Your task to perform on an android device: Open Google Chrome and click the shortcut for Amazon.com Image 0: 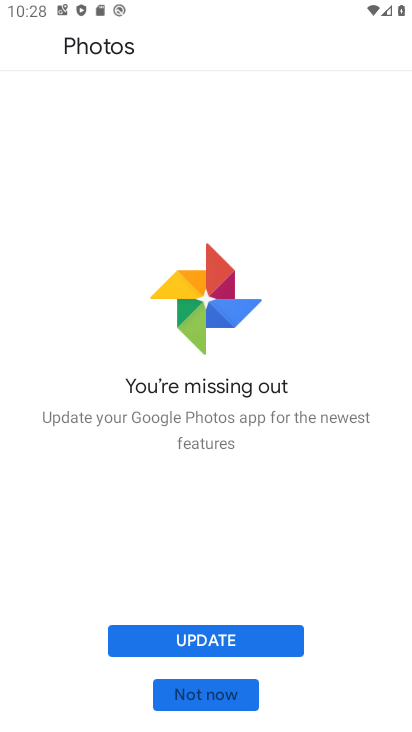
Step 0: press home button
Your task to perform on an android device: Open Google Chrome and click the shortcut for Amazon.com Image 1: 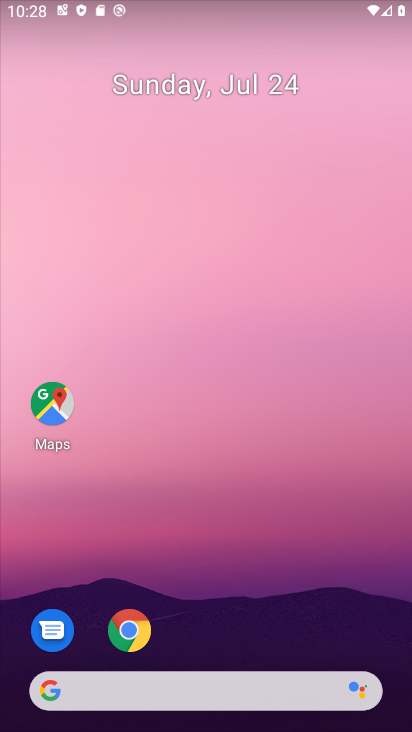
Step 1: click (149, 615)
Your task to perform on an android device: Open Google Chrome and click the shortcut for Amazon.com Image 2: 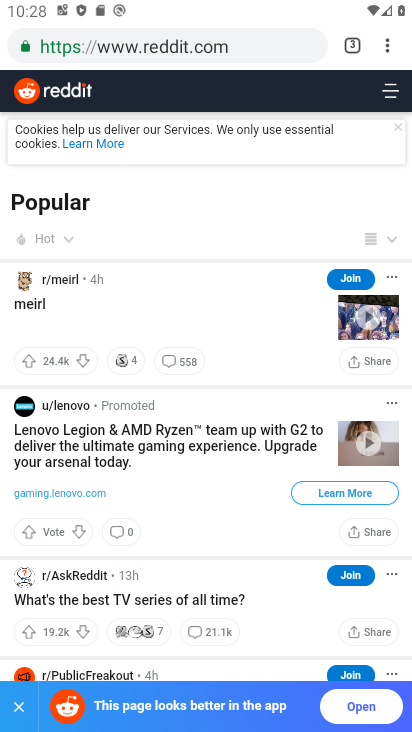
Step 2: click (345, 49)
Your task to perform on an android device: Open Google Chrome and click the shortcut for Amazon.com Image 3: 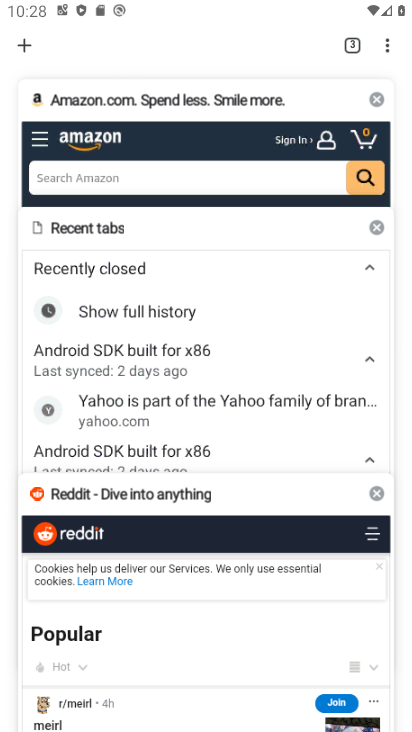
Step 3: click (88, 118)
Your task to perform on an android device: Open Google Chrome and click the shortcut for Amazon.com Image 4: 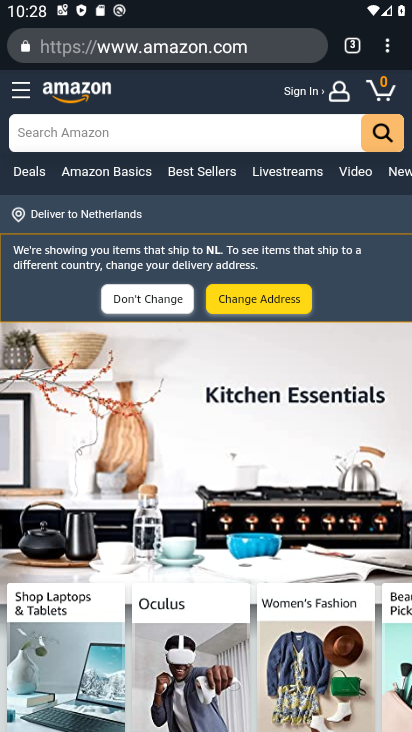
Step 4: task complete